Your task to perform on an android device: turn off translation in the chrome app Image 0: 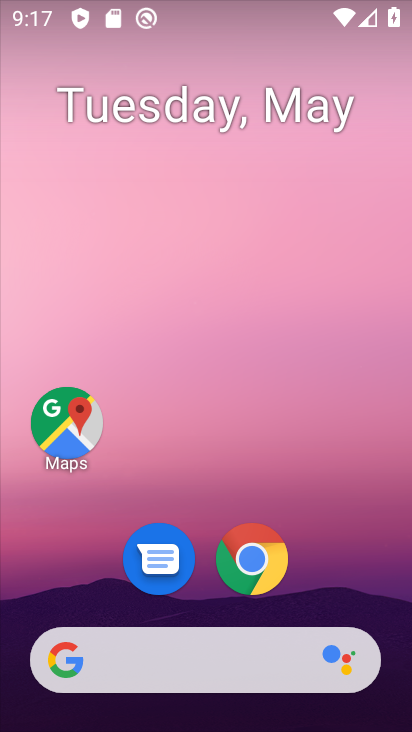
Step 0: click (261, 551)
Your task to perform on an android device: turn off translation in the chrome app Image 1: 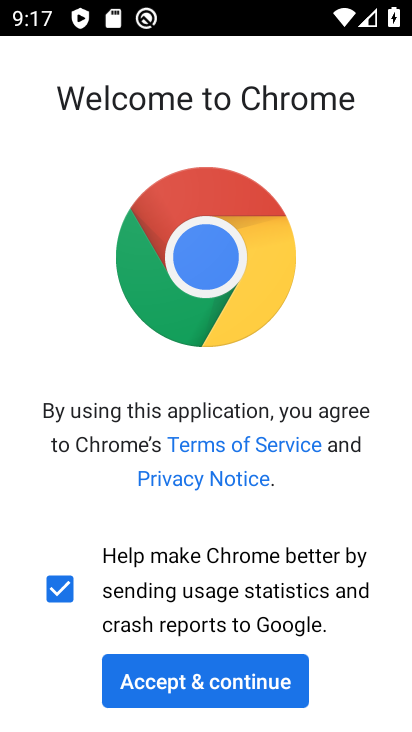
Step 1: click (240, 691)
Your task to perform on an android device: turn off translation in the chrome app Image 2: 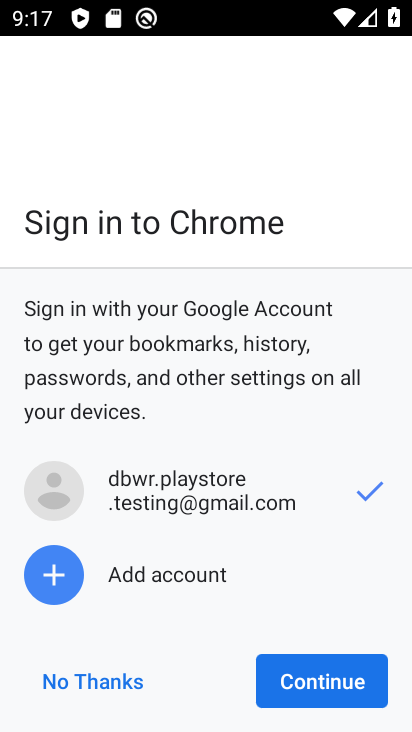
Step 2: click (315, 674)
Your task to perform on an android device: turn off translation in the chrome app Image 3: 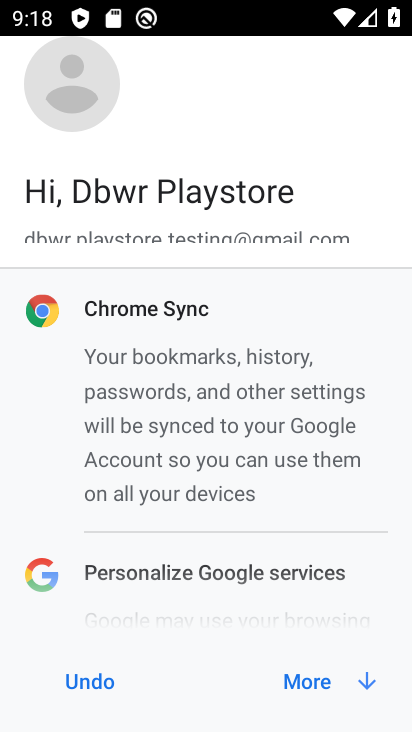
Step 3: click (293, 681)
Your task to perform on an android device: turn off translation in the chrome app Image 4: 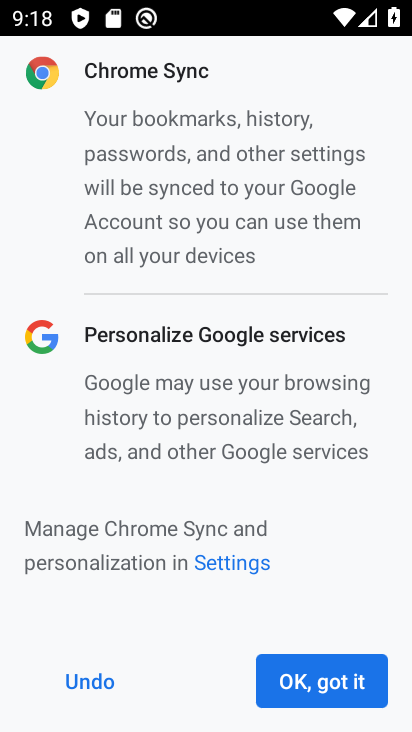
Step 4: click (297, 677)
Your task to perform on an android device: turn off translation in the chrome app Image 5: 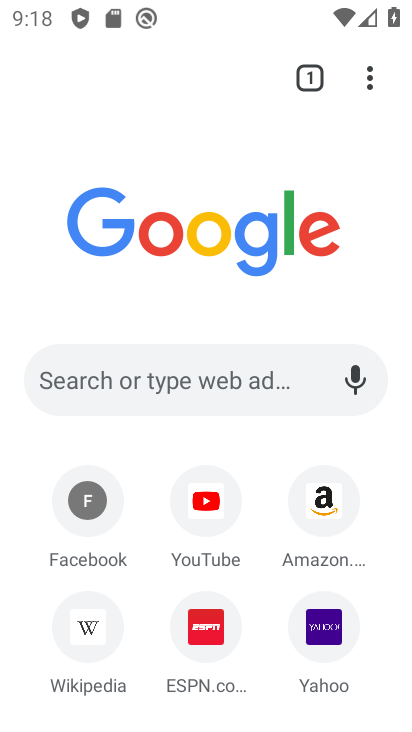
Step 5: drag from (378, 64) to (168, 624)
Your task to perform on an android device: turn off translation in the chrome app Image 6: 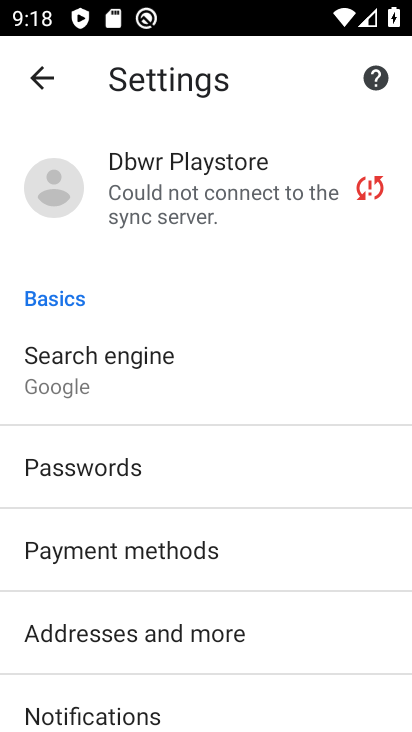
Step 6: drag from (224, 618) to (354, 206)
Your task to perform on an android device: turn off translation in the chrome app Image 7: 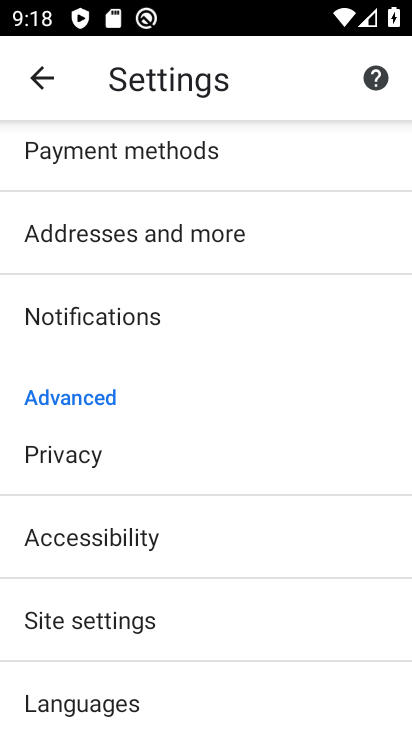
Step 7: drag from (207, 540) to (279, 342)
Your task to perform on an android device: turn off translation in the chrome app Image 8: 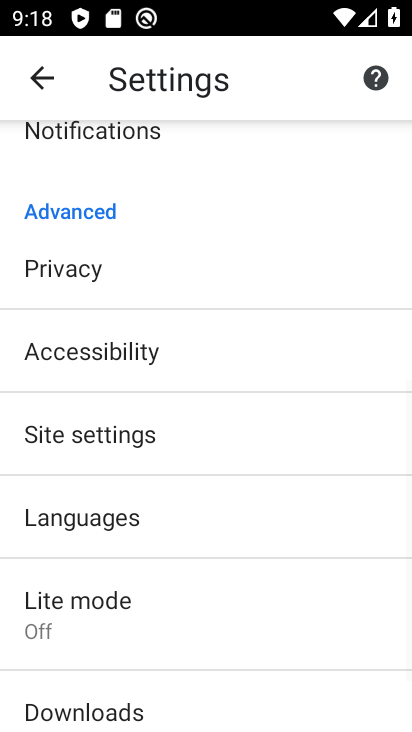
Step 8: click (63, 525)
Your task to perform on an android device: turn off translation in the chrome app Image 9: 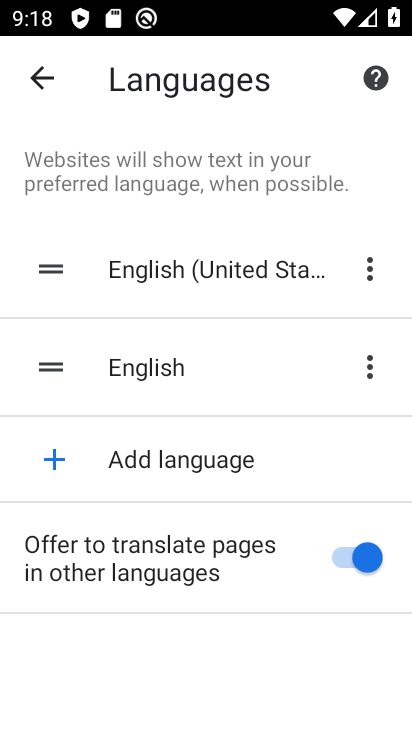
Step 9: click (346, 547)
Your task to perform on an android device: turn off translation in the chrome app Image 10: 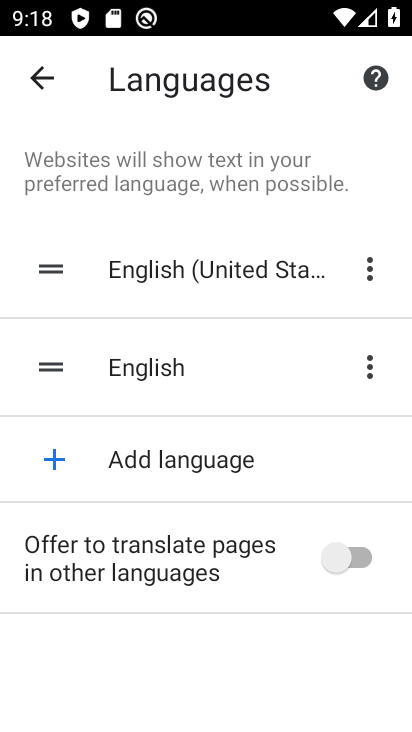
Step 10: task complete